Your task to perform on an android device: Search for a new highlighter Image 0: 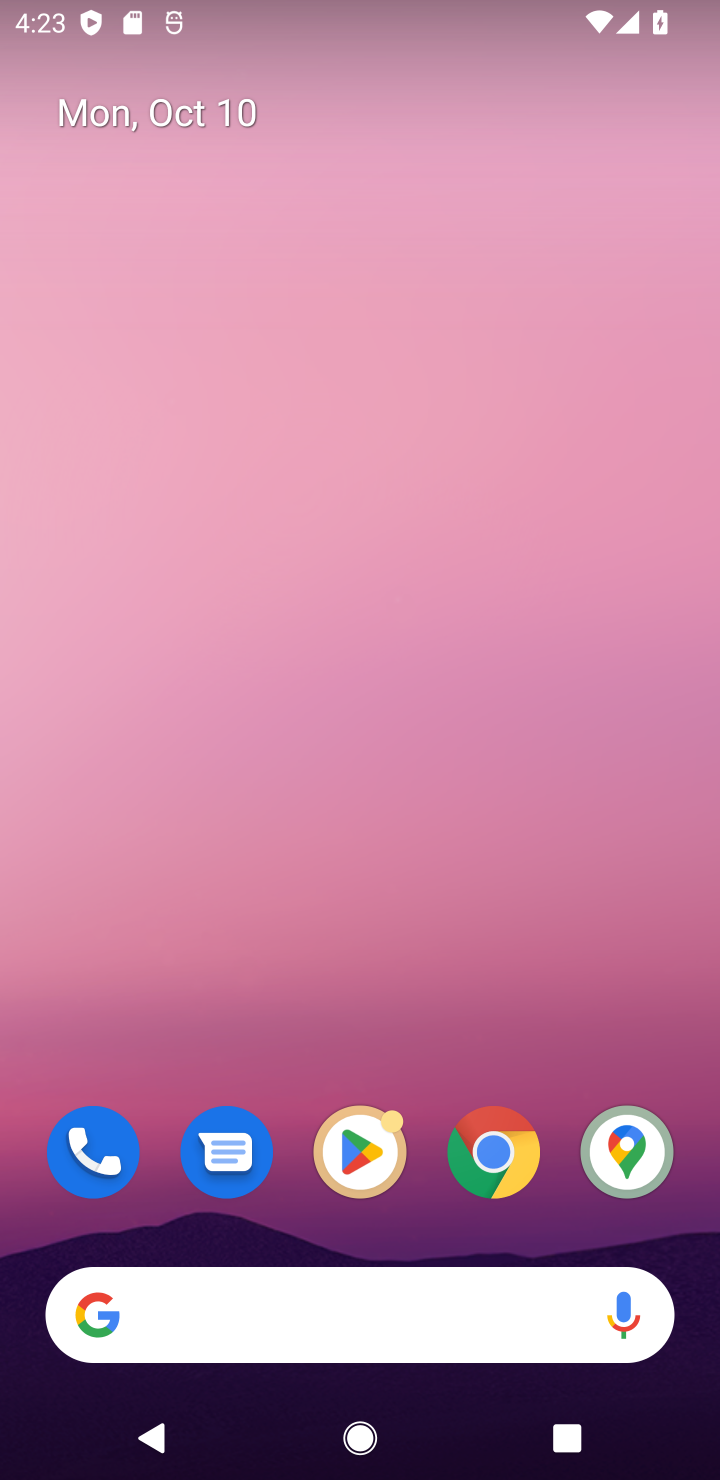
Step 0: click (495, 1166)
Your task to perform on an android device: Search for a new highlighter Image 1: 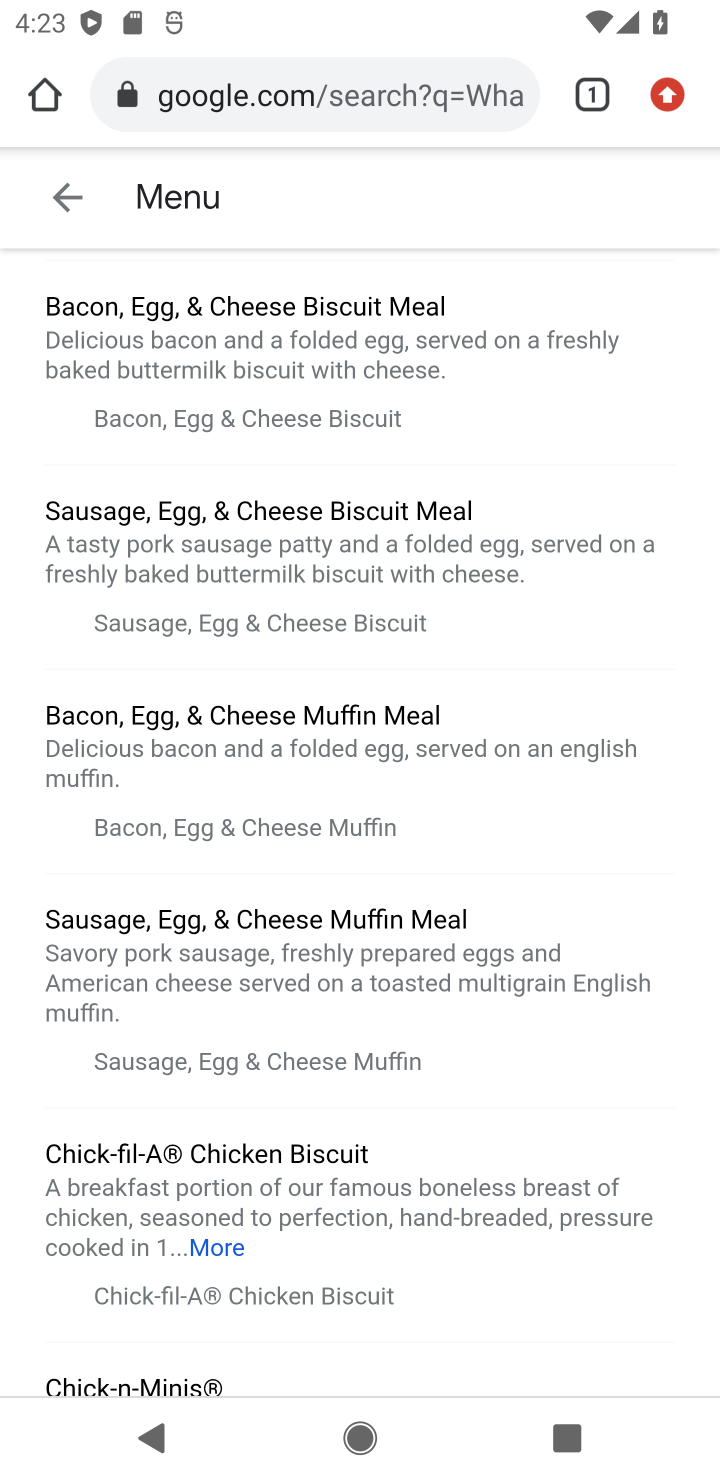
Step 1: click (256, 113)
Your task to perform on an android device: Search for a new highlighter Image 2: 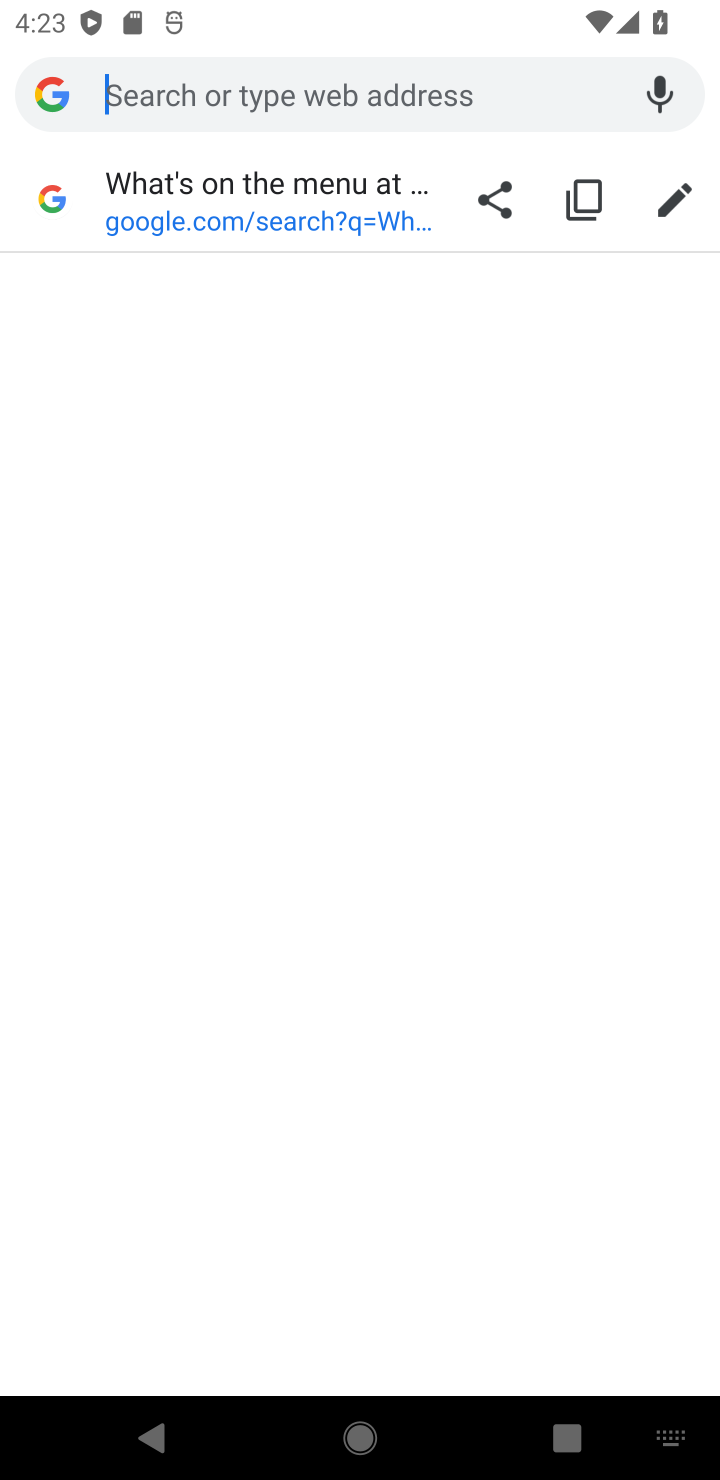
Step 2: type "New highlighter"
Your task to perform on an android device: Search for a new highlighter Image 3: 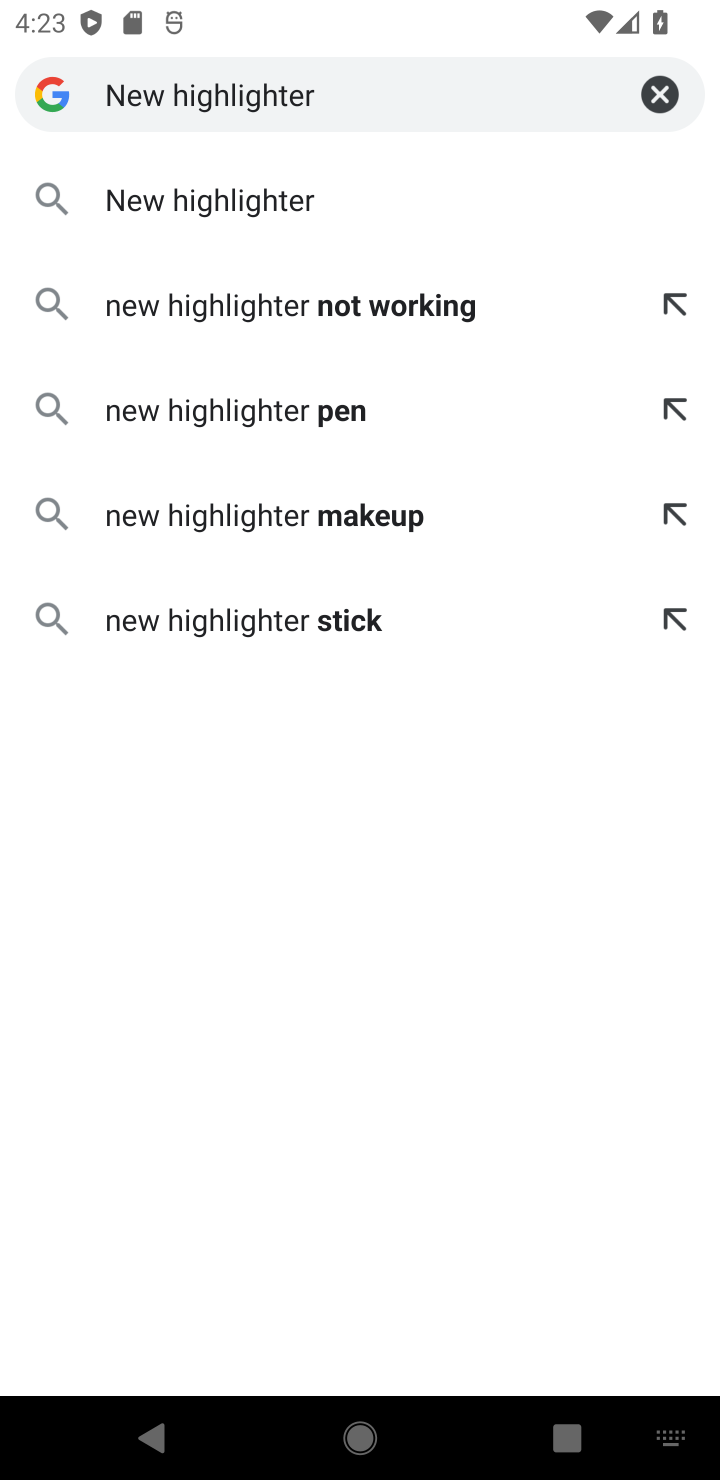
Step 3: click (242, 193)
Your task to perform on an android device: Search for a new highlighter Image 4: 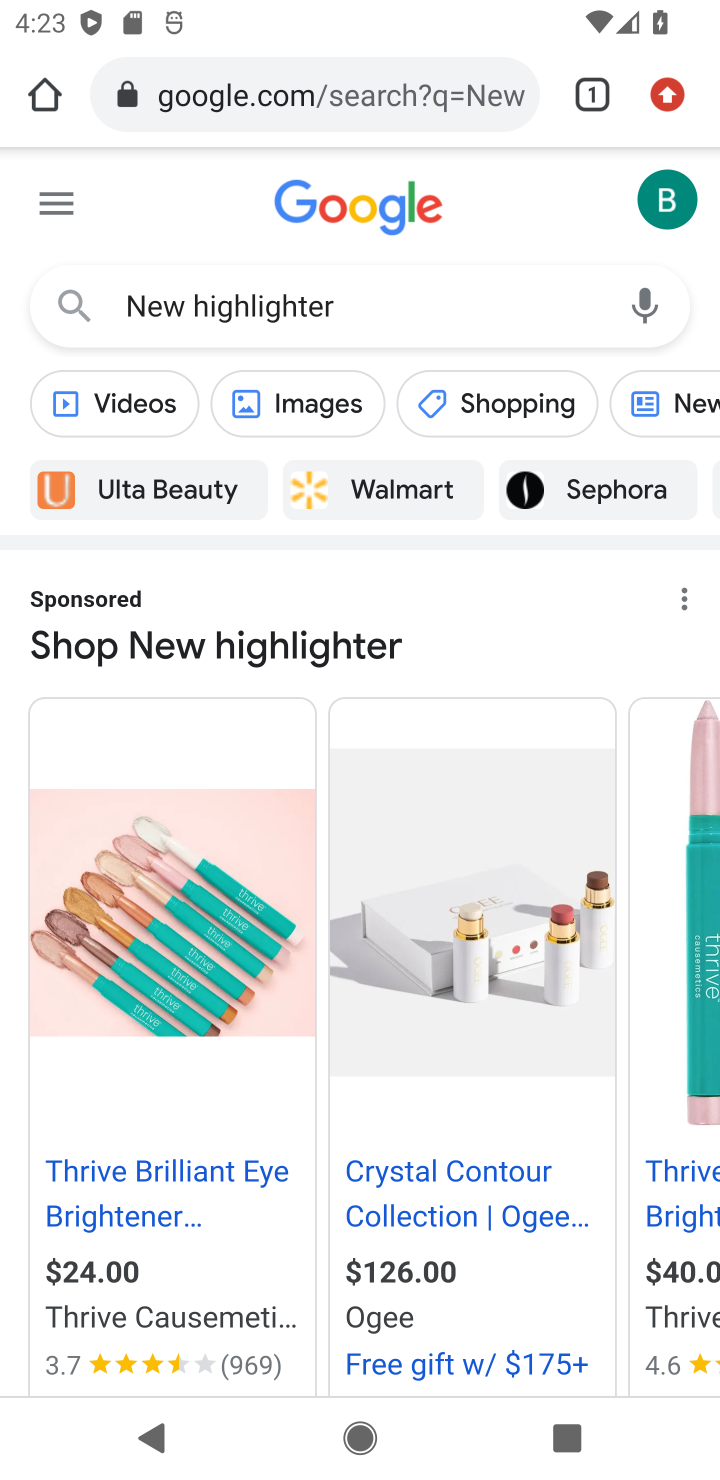
Step 4: drag from (318, 1149) to (482, 639)
Your task to perform on an android device: Search for a new highlighter Image 5: 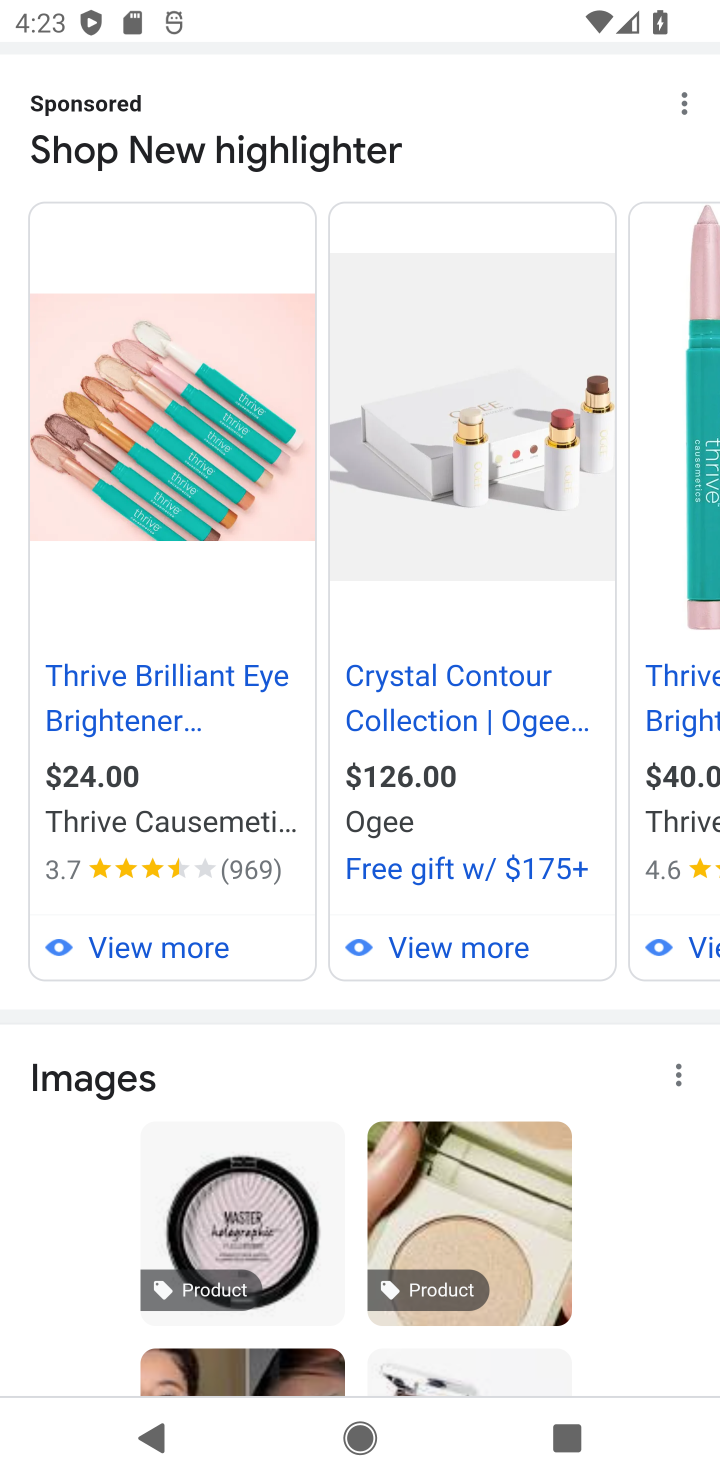
Step 5: drag from (325, 1146) to (518, 767)
Your task to perform on an android device: Search for a new highlighter Image 6: 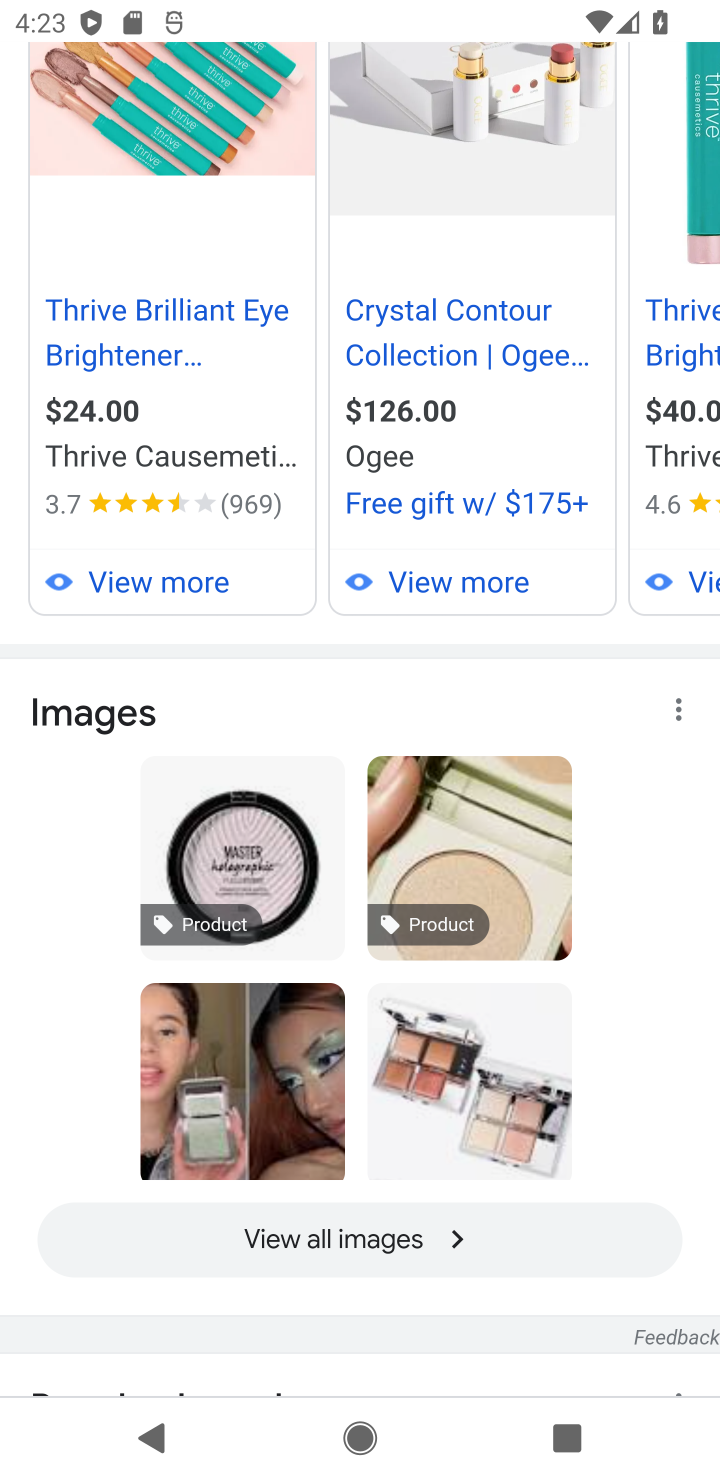
Step 6: drag from (304, 1230) to (529, 727)
Your task to perform on an android device: Search for a new highlighter Image 7: 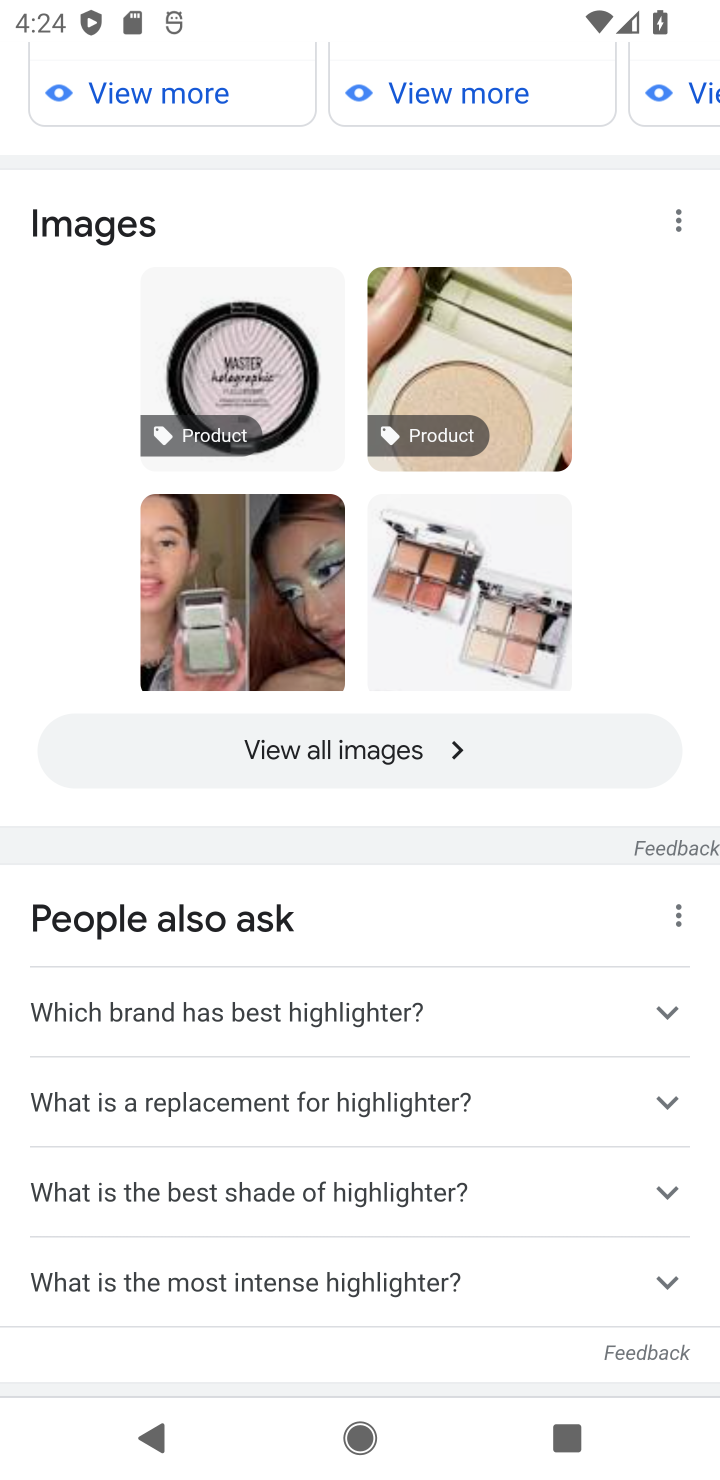
Step 7: drag from (320, 1163) to (543, 755)
Your task to perform on an android device: Search for a new highlighter Image 8: 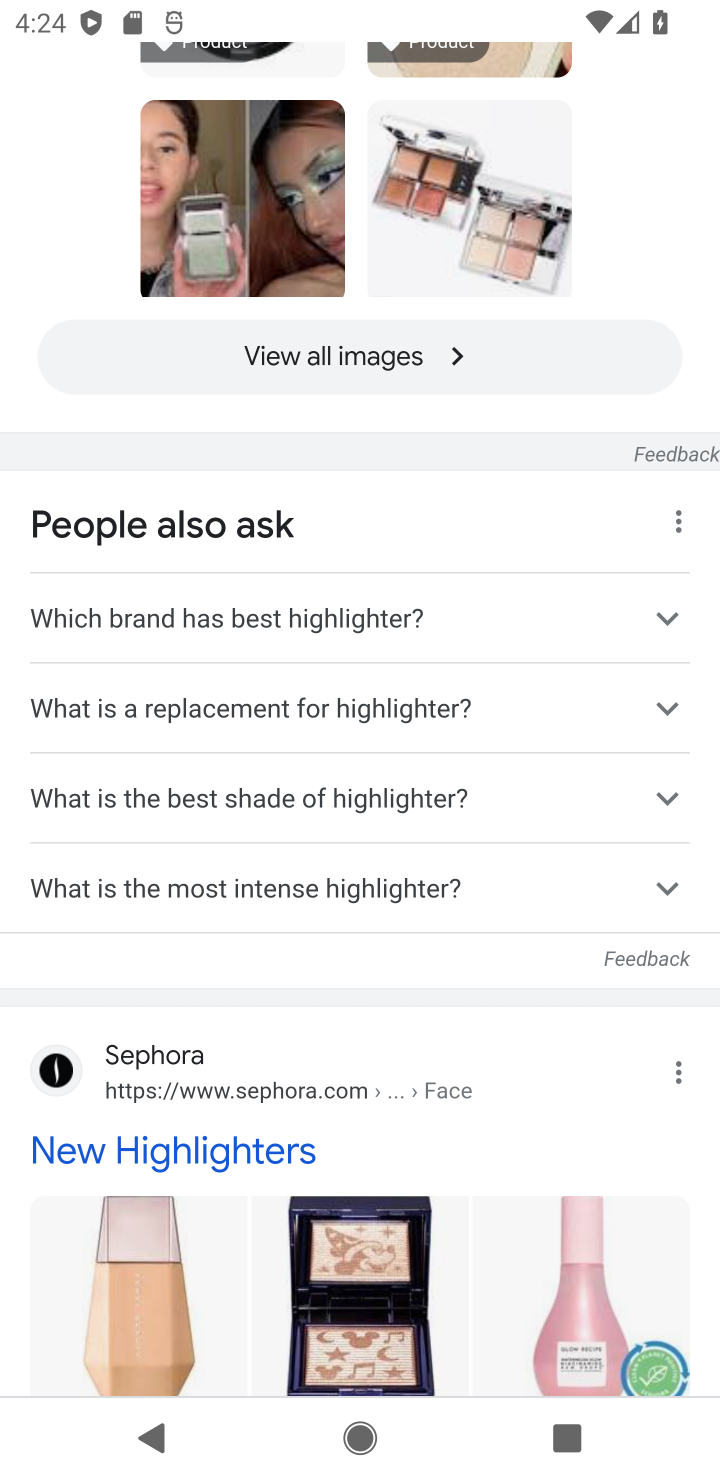
Step 8: drag from (260, 1265) to (486, 790)
Your task to perform on an android device: Search for a new highlighter Image 9: 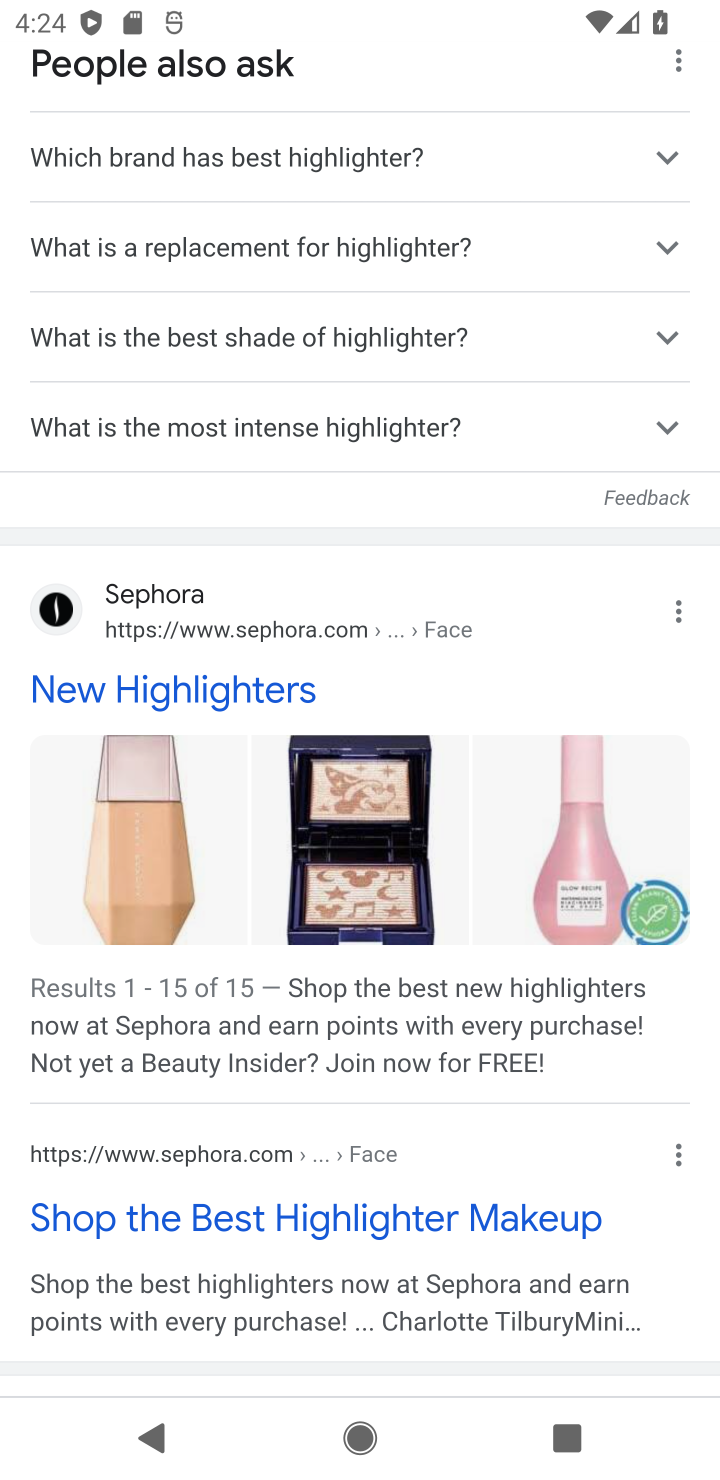
Step 9: click (218, 639)
Your task to perform on an android device: Search for a new highlighter Image 10: 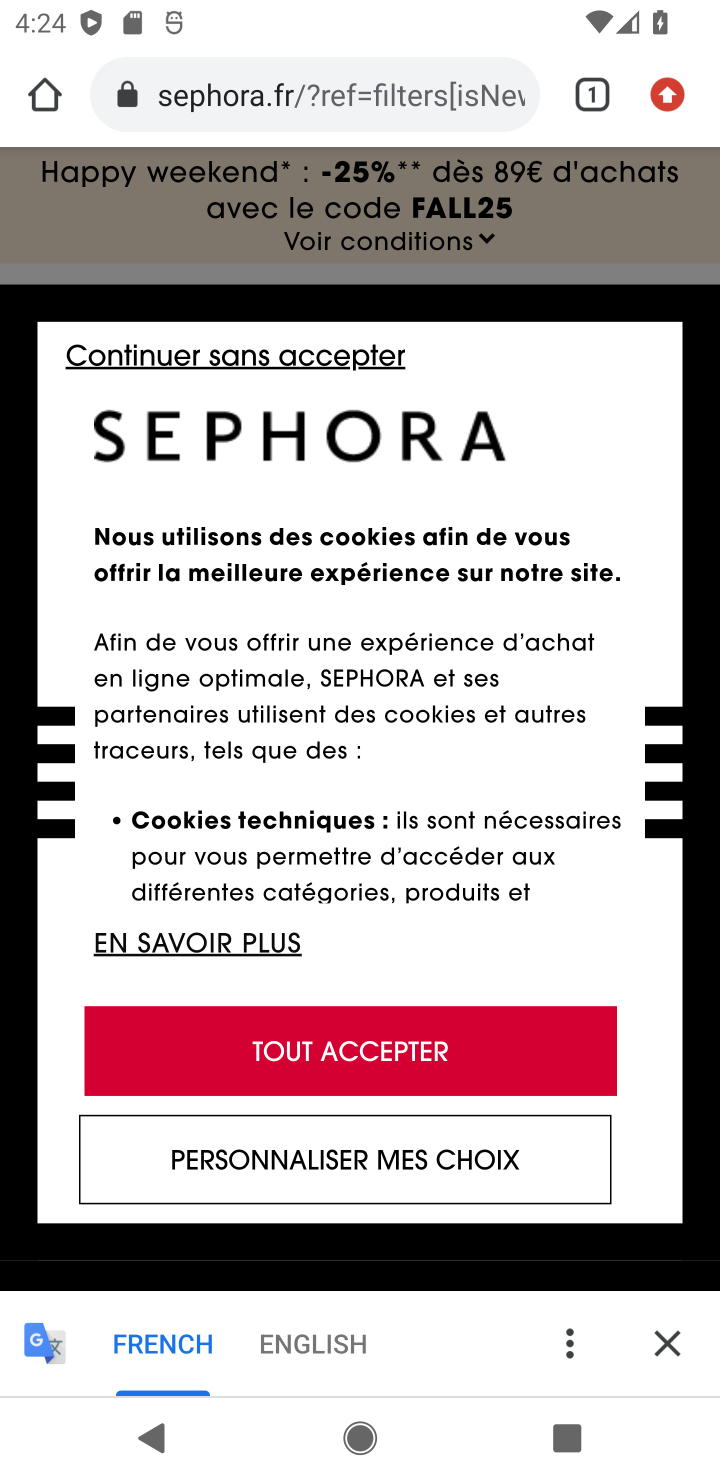
Step 10: click (324, 1074)
Your task to perform on an android device: Search for a new highlighter Image 11: 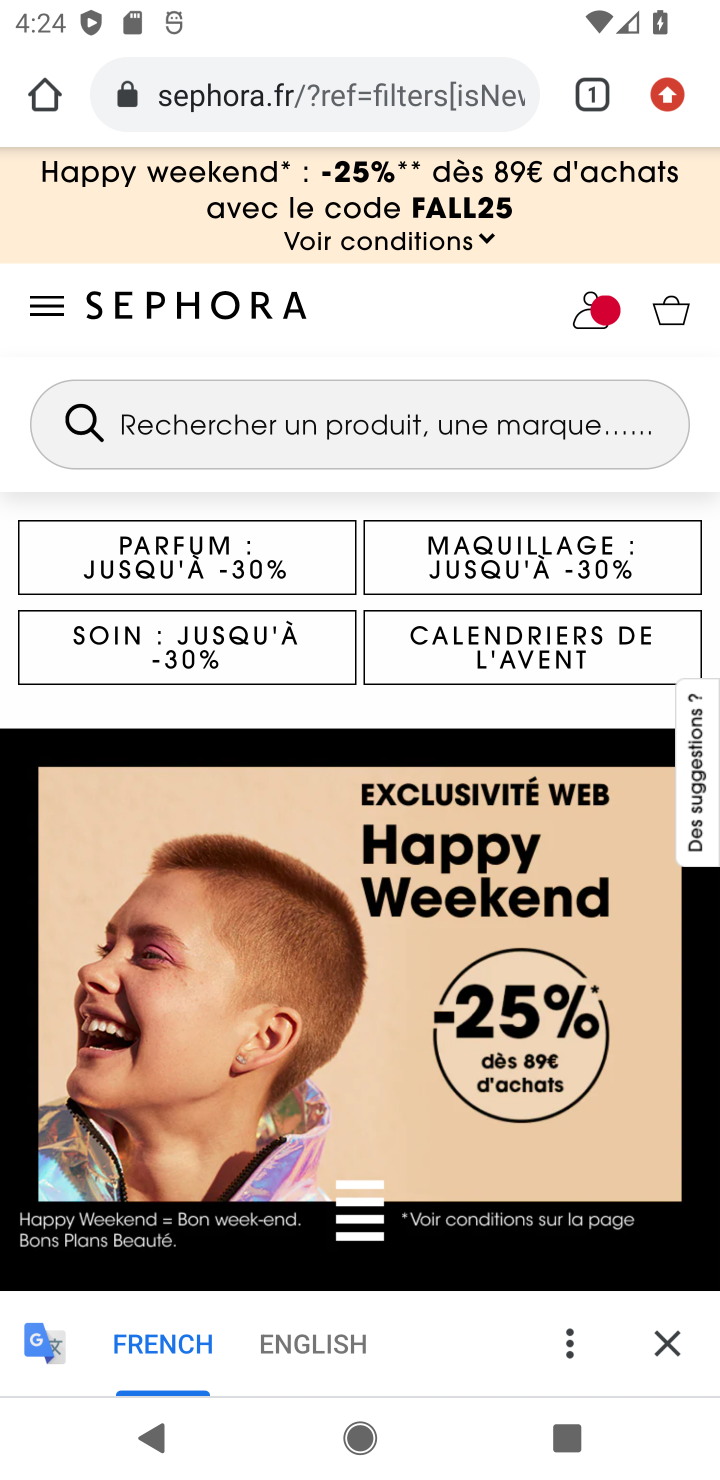
Step 11: drag from (297, 1150) to (394, 622)
Your task to perform on an android device: Search for a new highlighter Image 12: 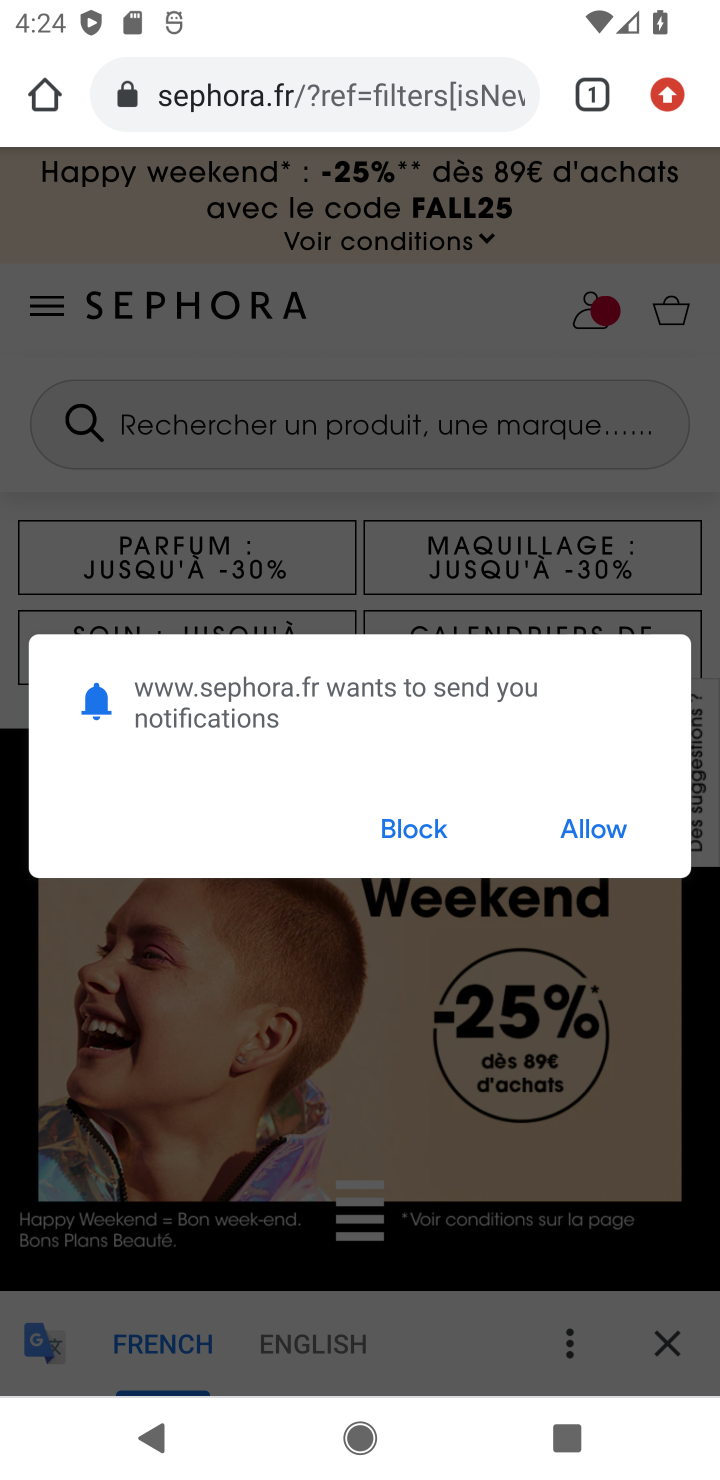
Step 12: click (588, 832)
Your task to perform on an android device: Search for a new highlighter Image 13: 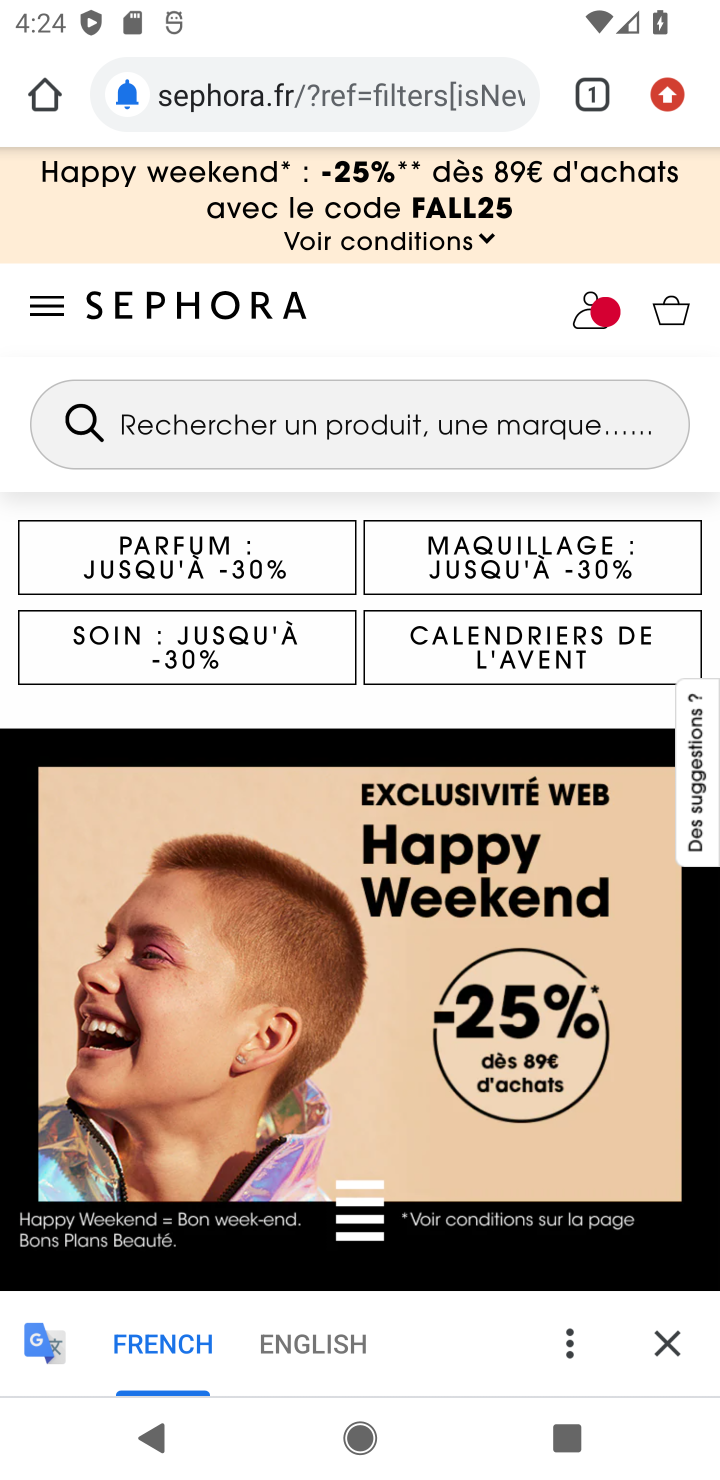
Step 13: task complete